Your task to perform on an android device: When is my next appointment? Image 0: 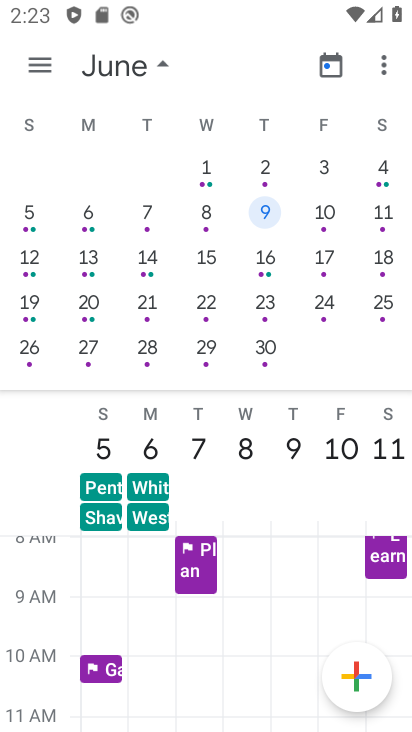
Step 0: press home button
Your task to perform on an android device: When is my next appointment? Image 1: 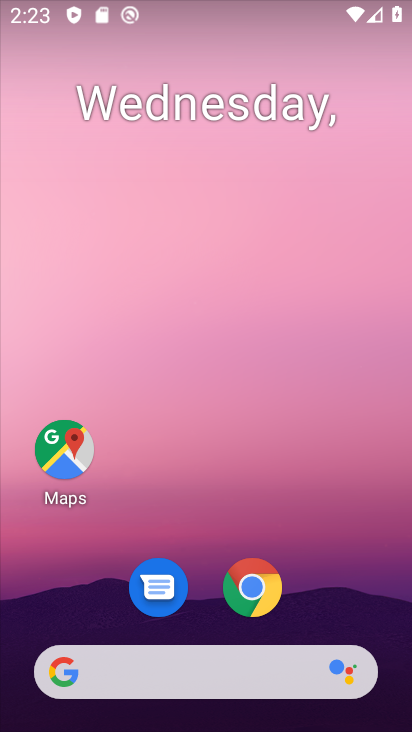
Step 1: drag from (329, 610) to (250, 191)
Your task to perform on an android device: When is my next appointment? Image 2: 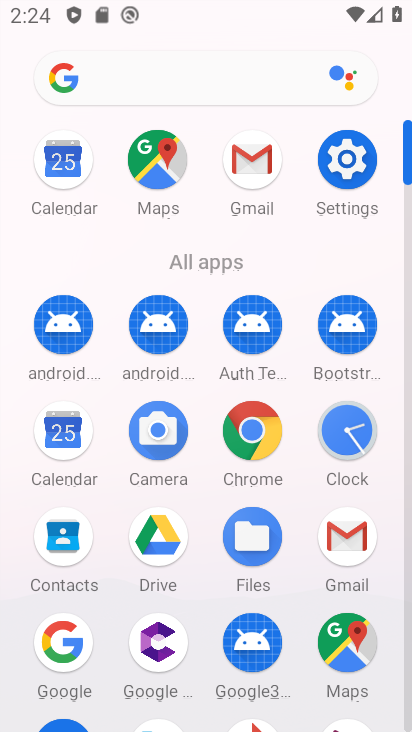
Step 2: click (54, 430)
Your task to perform on an android device: When is my next appointment? Image 3: 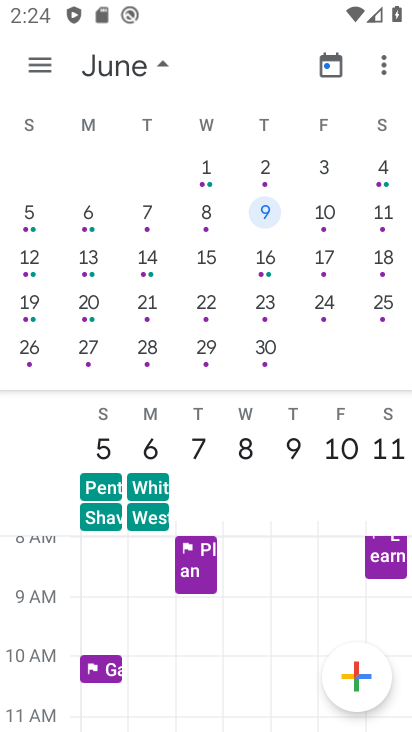
Step 3: click (151, 71)
Your task to perform on an android device: When is my next appointment? Image 4: 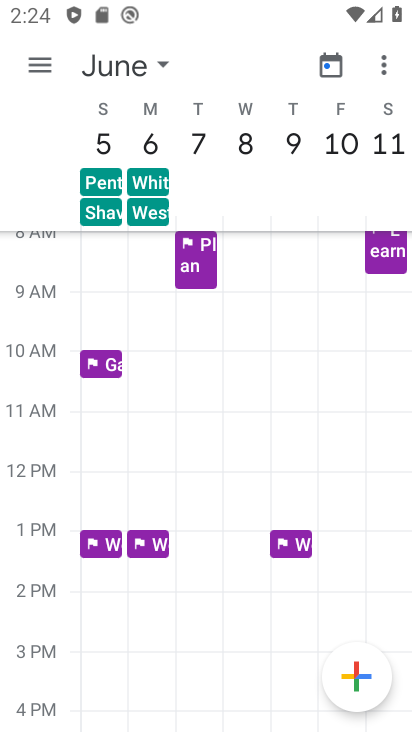
Step 4: click (151, 71)
Your task to perform on an android device: When is my next appointment? Image 5: 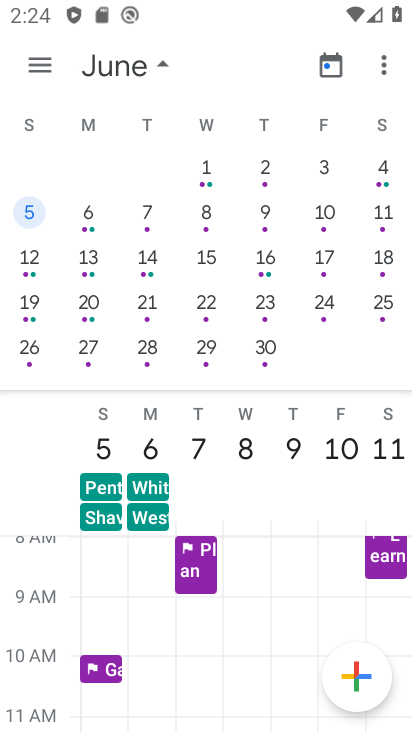
Step 5: drag from (46, 314) to (400, 263)
Your task to perform on an android device: When is my next appointment? Image 6: 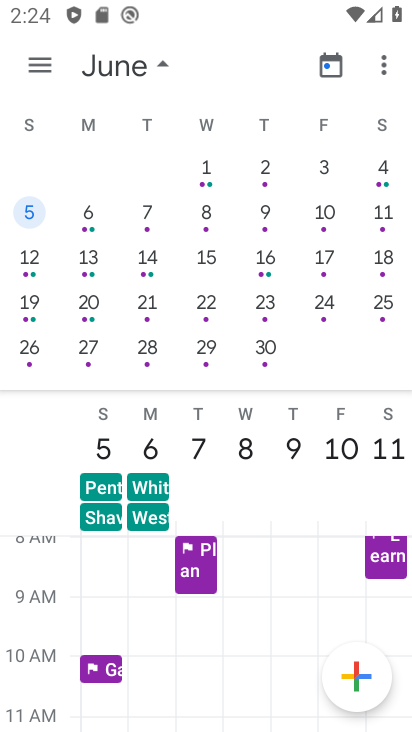
Step 6: drag from (69, 271) to (406, 206)
Your task to perform on an android device: When is my next appointment? Image 7: 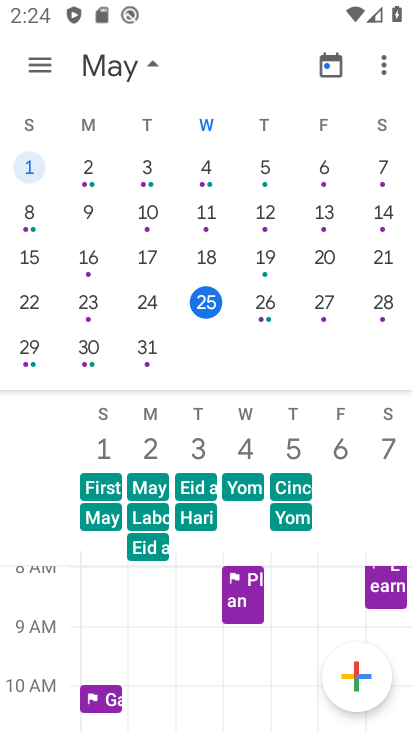
Step 7: click (197, 300)
Your task to perform on an android device: When is my next appointment? Image 8: 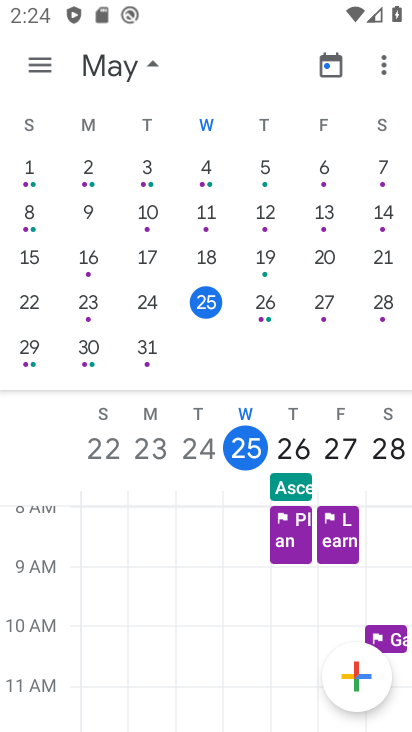
Step 8: click (38, 57)
Your task to perform on an android device: When is my next appointment? Image 9: 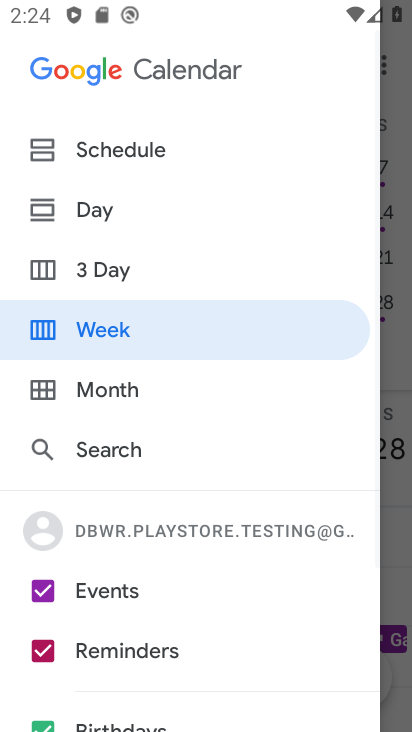
Step 9: click (70, 140)
Your task to perform on an android device: When is my next appointment? Image 10: 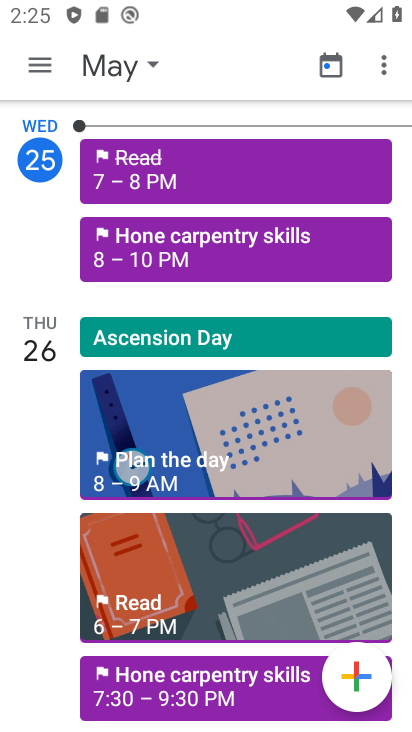
Step 10: task complete